Your task to perform on an android device: Turn on the flashlight Image 0: 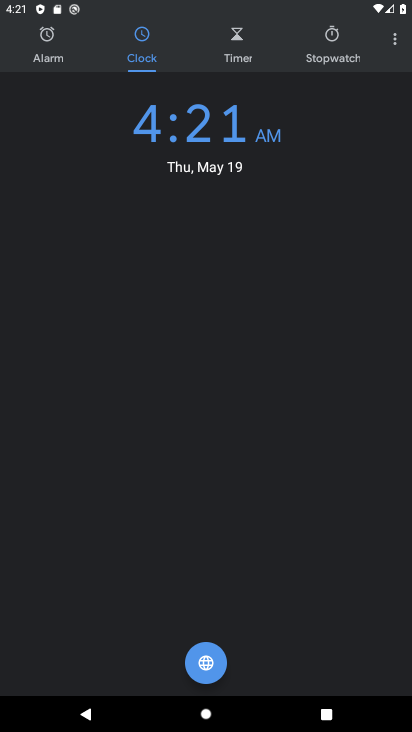
Step 0: press home button
Your task to perform on an android device: Turn on the flashlight Image 1: 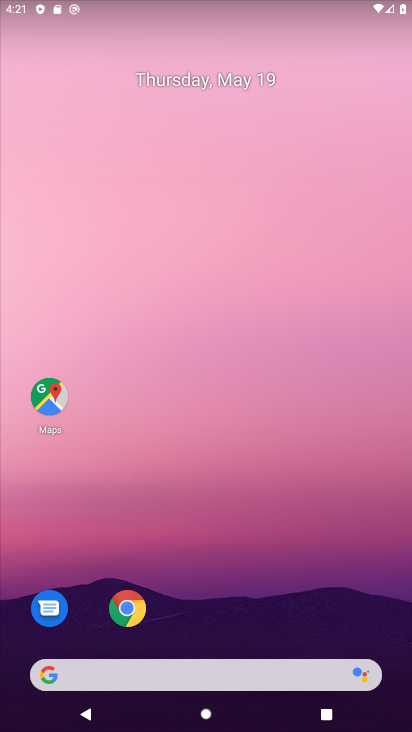
Step 1: task complete